Your task to perform on an android device: Open settings Image 0: 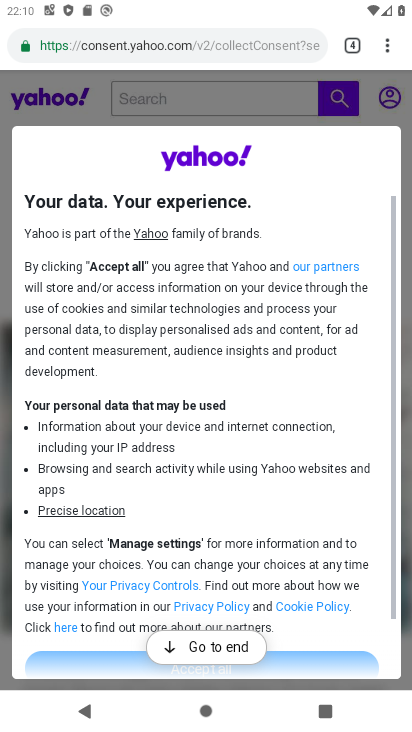
Step 0: press back button
Your task to perform on an android device: Open settings Image 1: 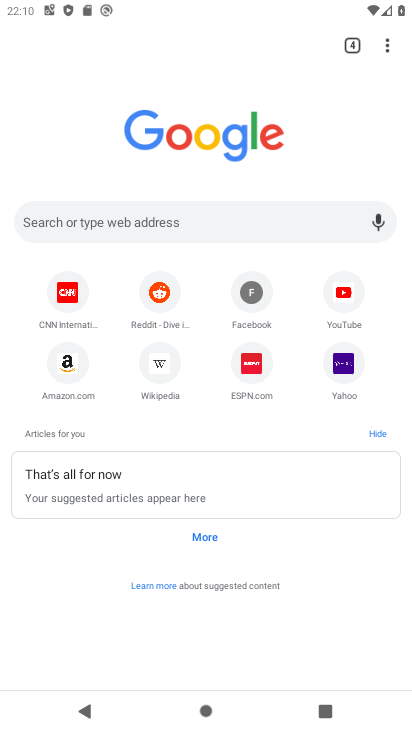
Step 1: press back button
Your task to perform on an android device: Open settings Image 2: 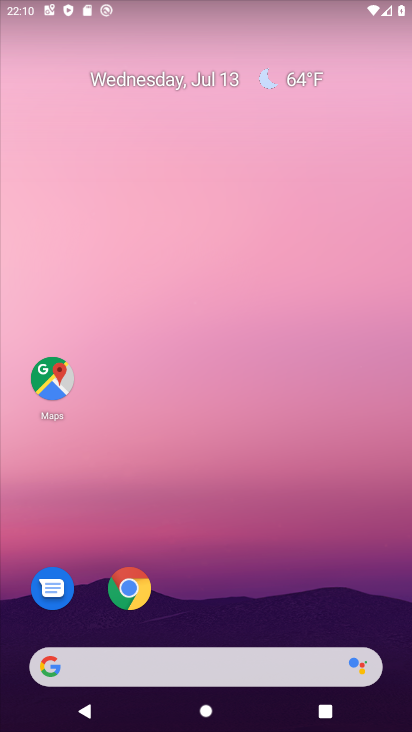
Step 2: drag from (242, 626) to (340, 25)
Your task to perform on an android device: Open settings Image 3: 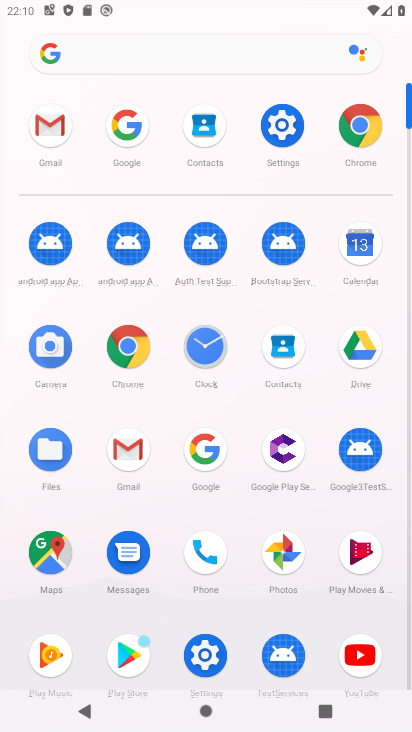
Step 3: click (277, 123)
Your task to perform on an android device: Open settings Image 4: 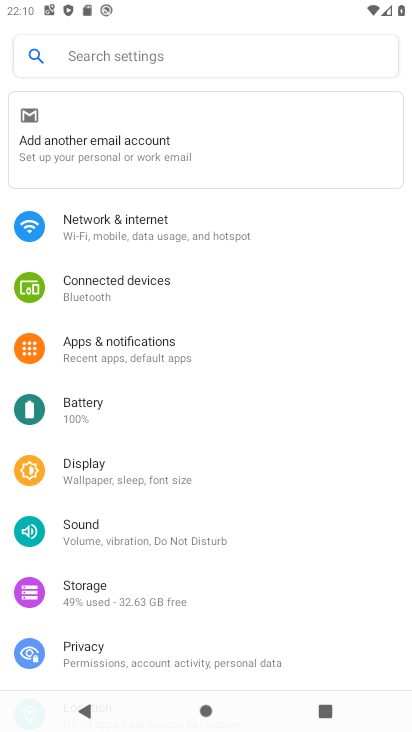
Step 4: task complete